Your task to perform on an android device: change text size in settings app Image 0: 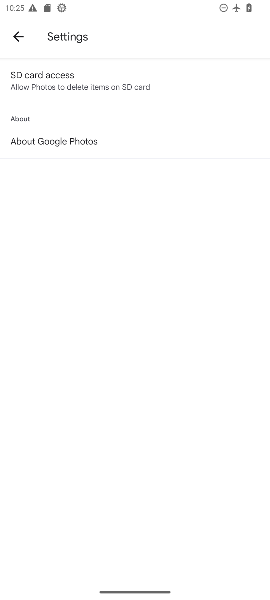
Step 0: press home button
Your task to perform on an android device: change text size in settings app Image 1: 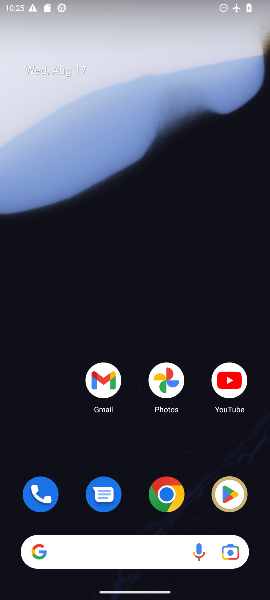
Step 1: drag from (148, 467) to (182, 53)
Your task to perform on an android device: change text size in settings app Image 2: 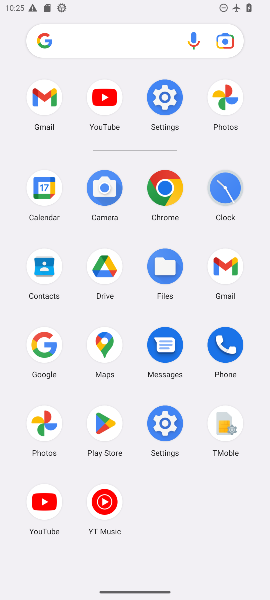
Step 2: click (161, 420)
Your task to perform on an android device: change text size in settings app Image 3: 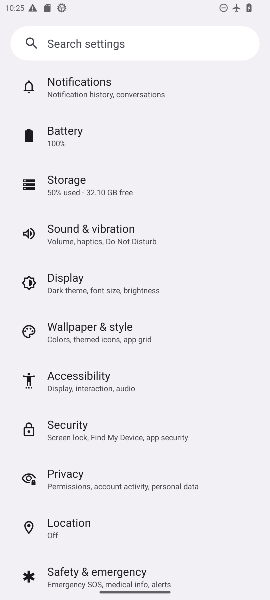
Step 3: drag from (141, 406) to (151, 209)
Your task to perform on an android device: change text size in settings app Image 4: 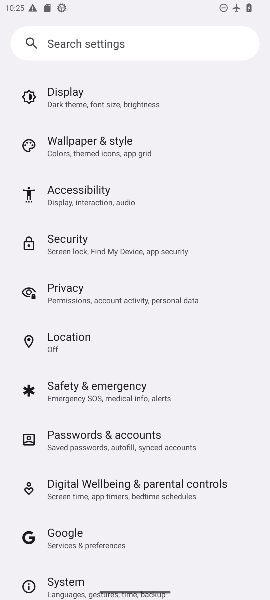
Step 4: click (67, 101)
Your task to perform on an android device: change text size in settings app Image 5: 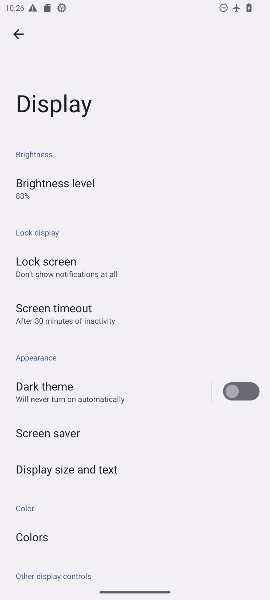
Step 5: drag from (83, 471) to (132, 191)
Your task to perform on an android device: change text size in settings app Image 6: 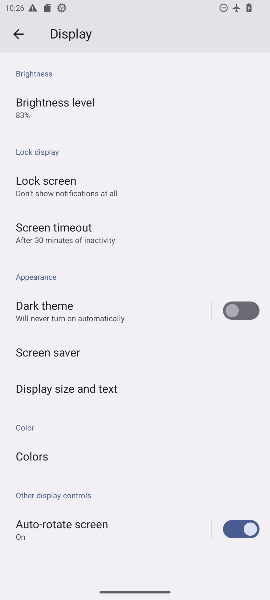
Step 6: click (37, 392)
Your task to perform on an android device: change text size in settings app Image 7: 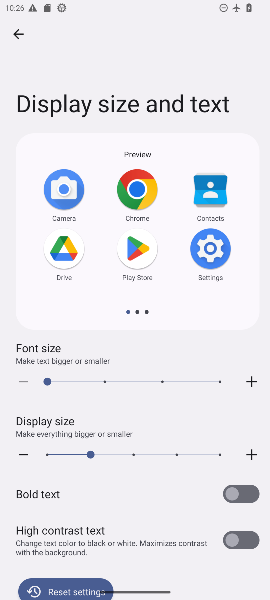
Step 7: drag from (96, 479) to (127, 280)
Your task to perform on an android device: change text size in settings app Image 8: 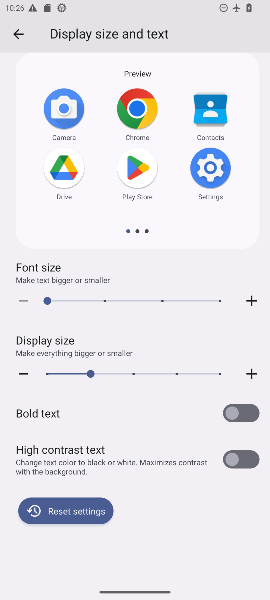
Step 8: click (77, 298)
Your task to perform on an android device: change text size in settings app Image 9: 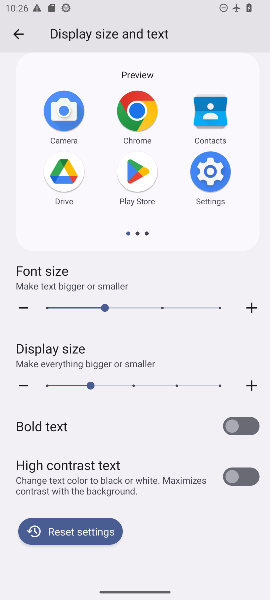
Step 9: task complete